Your task to perform on an android device: move an email to a new category in the gmail app Image 0: 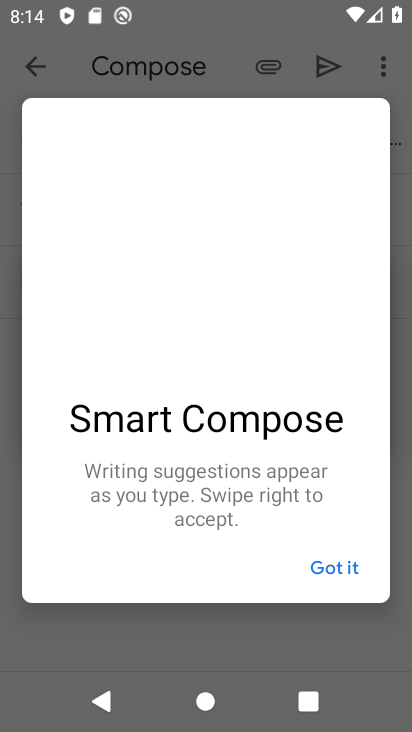
Step 0: press home button
Your task to perform on an android device: move an email to a new category in the gmail app Image 1: 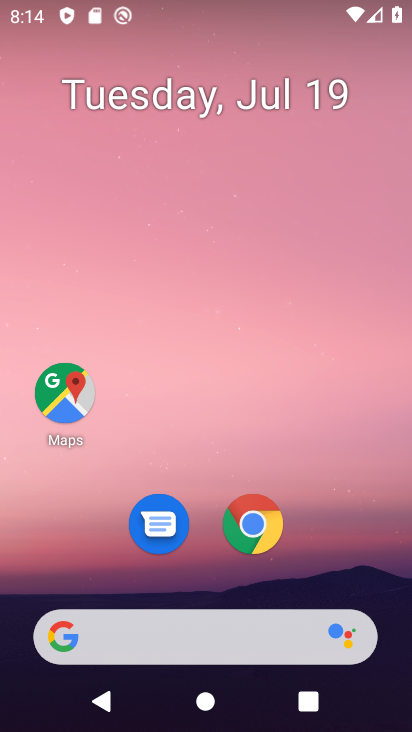
Step 1: drag from (206, 640) to (348, 9)
Your task to perform on an android device: move an email to a new category in the gmail app Image 2: 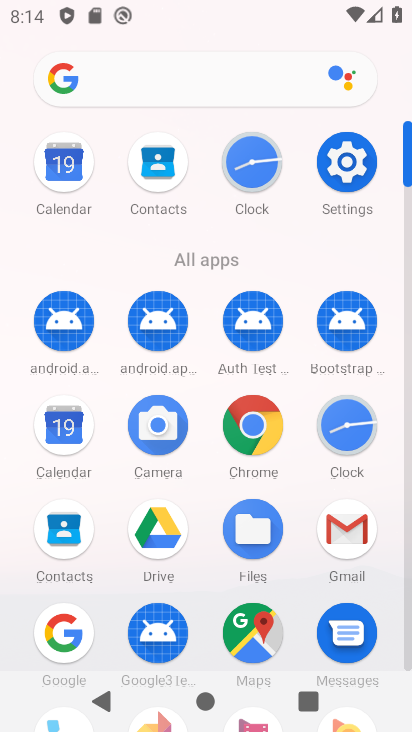
Step 2: click (340, 530)
Your task to perform on an android device: move an email to a new category in the gmail app Image 3: 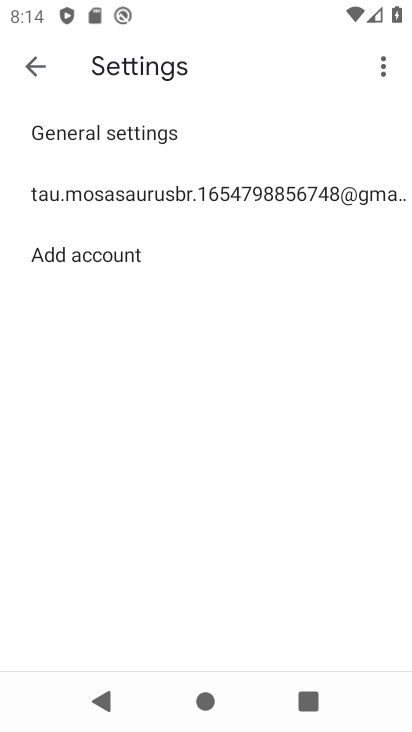
Step 3: click (36, 69)
Your task to perform on an android device: move an email to a new category in the gmail app Image 4: 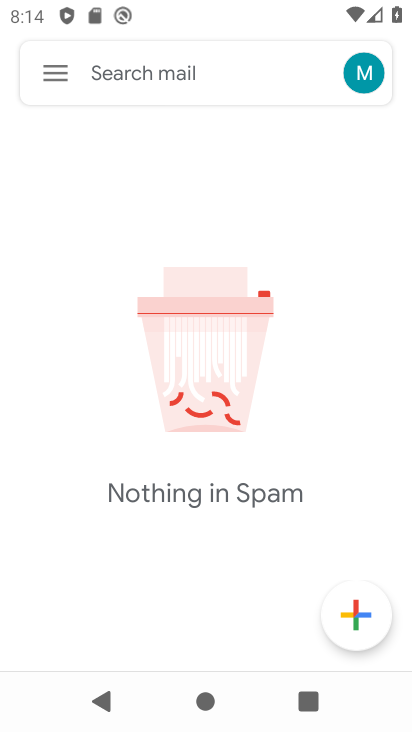
Step 4: click (52, 80)
Your task to perform on an android device: move an email to a new category in the gmail app Image 5: 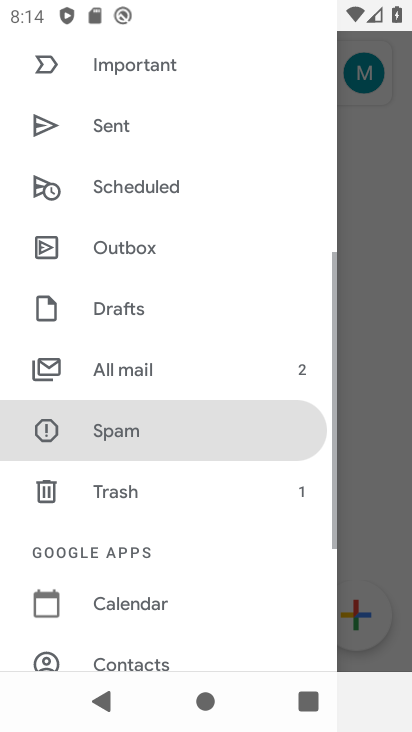
Step 5: drag from (244, 155) to (245, 593)
Your task to perform on an android device: move an email to a new category in the gmail app Image 6: 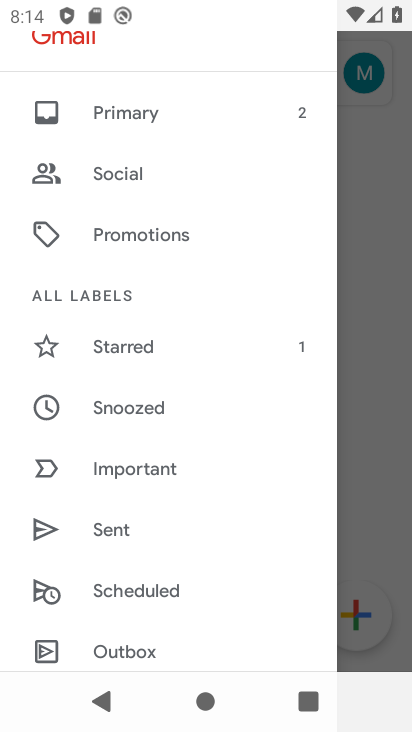
Step 6: click (150, 114)
Your task to perform on an android device: move an email to a new category in the gmail app Image 7: 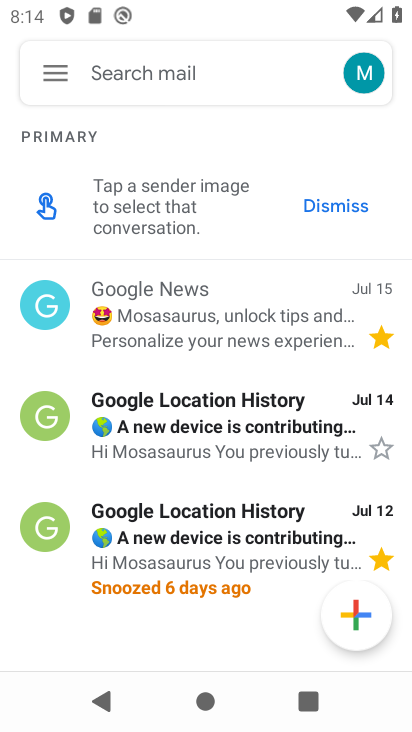
Step 7: click (52, 301)
Your task to perform on an android device: move an email to a new category in the gmail app Image 8: 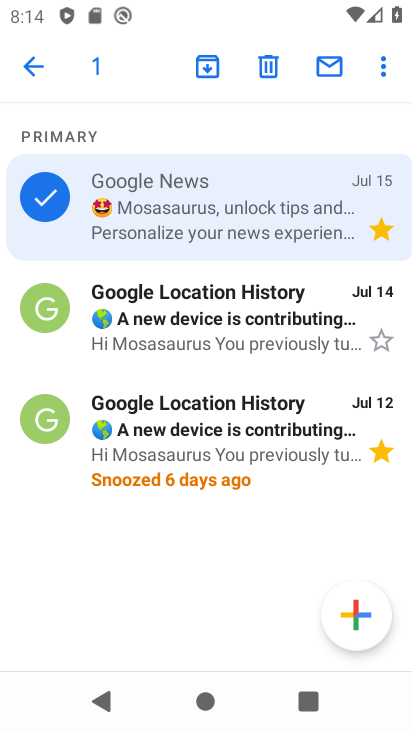
Step 8: click (381, 71)
Your task to perform on an android device: move an email to a new category in the gmail app Image 9: 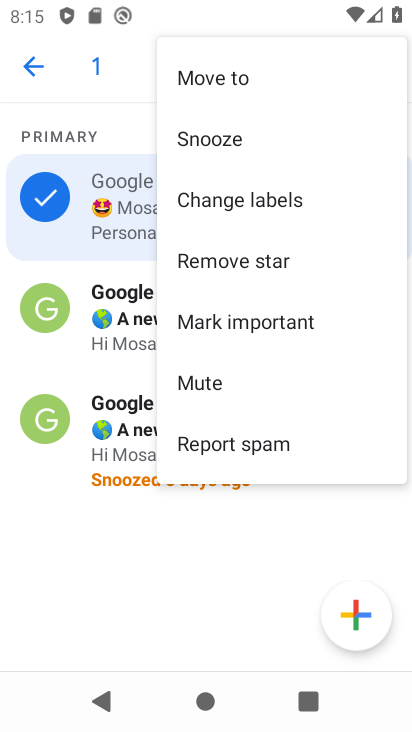
Step 9: click (233, 80)
Your task to perform on an android device: move an email to a new category in the gmail app Image 10: 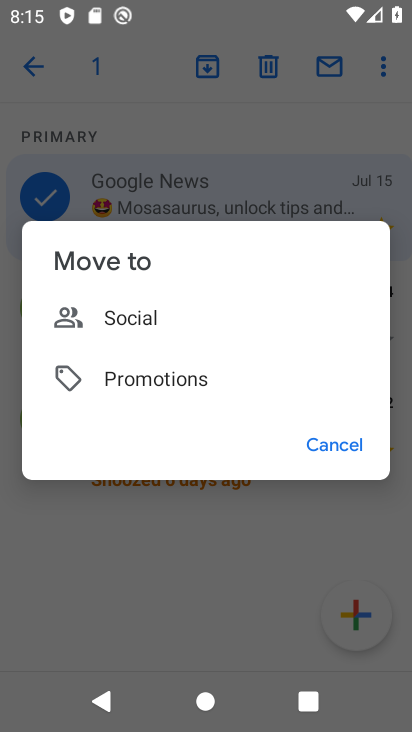
Step 10: click (137, 321)
Your task to perform on an android device: move an email to a new category in the gmail app Image 11: 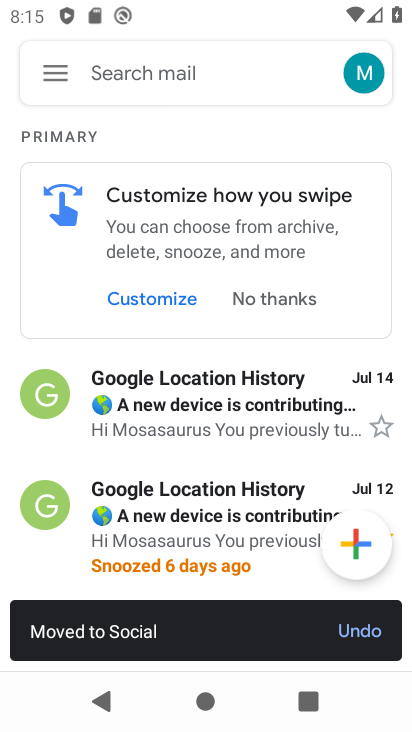
Step 11: task complete